Your task to perform on an android device: turn on translation in the chrome app Image 0: 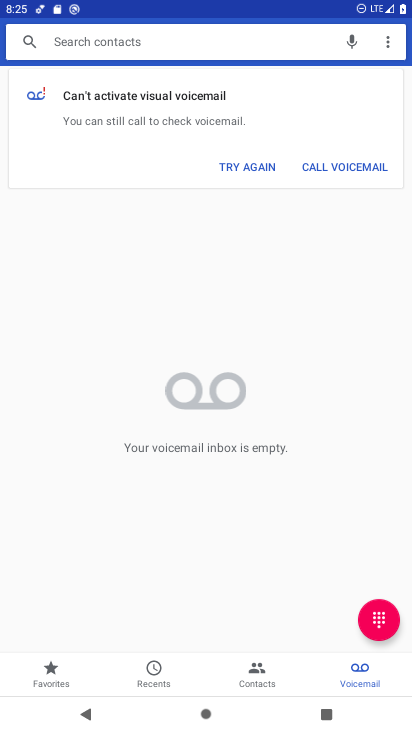
Step 0: press home button
Your task to perform on an android device: turn on translation in the chrome app Image 1: 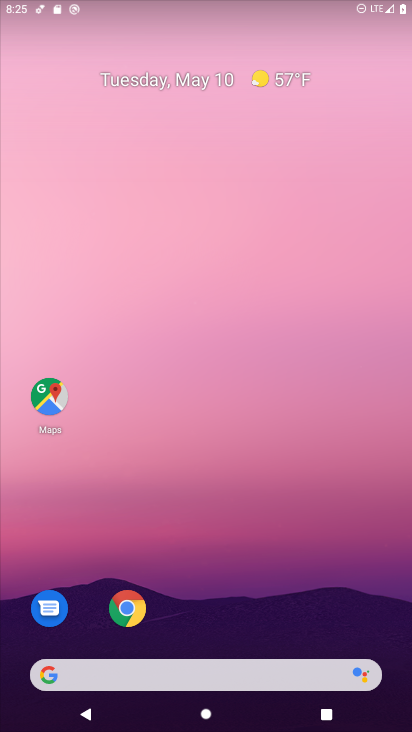
Step 1: drag from (327, 599) to (288, 54)
Your task to perform on an android device: turn on translation in the chrome app Image 2: 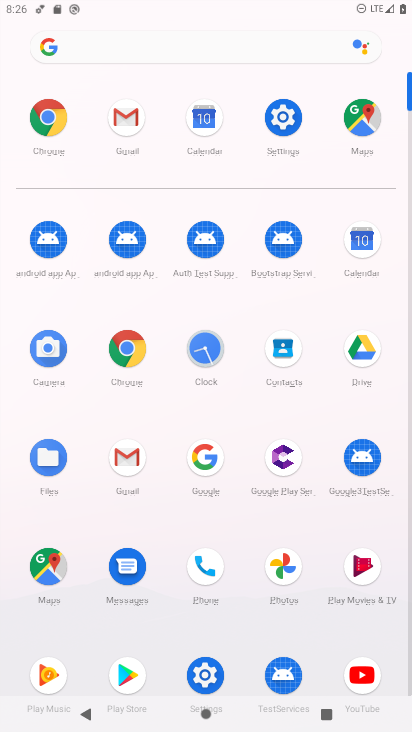
Step 2: click (119, 348)
Your task to perform on an android device: turn on translation in the chrome app Image 3: 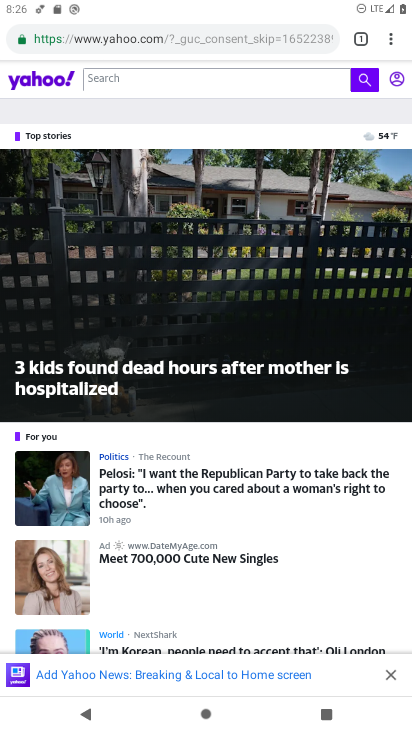
Step 3: press back button
Your task to perform on an android device: turn on translation in the chrome app Image 4: 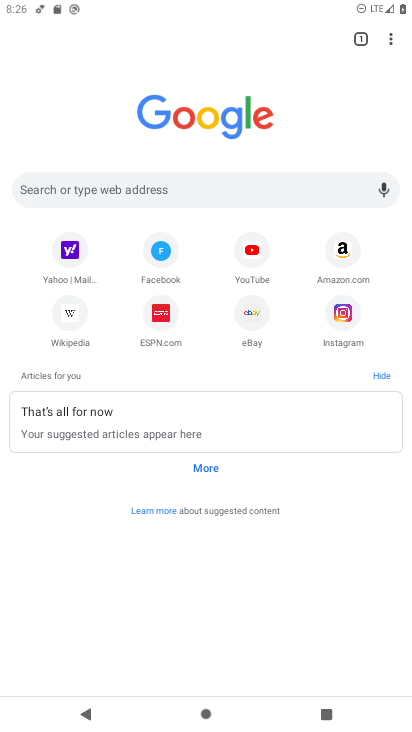
Step 4: click (390, 41)
Your task to perform on an android device: turn on translation in the chrome app Image 5: 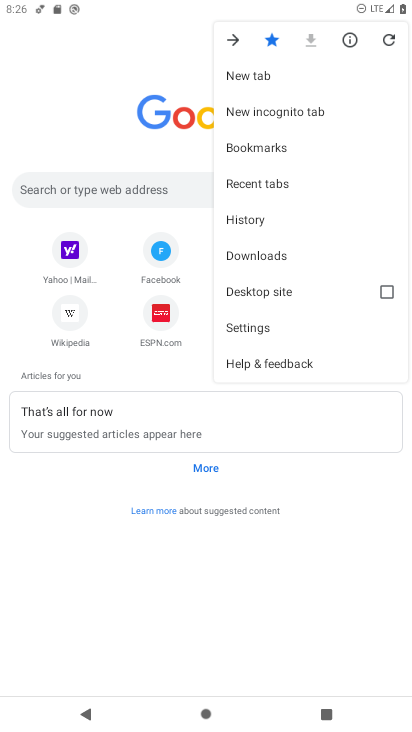
Step 5: click (281, 328)
Your task to perform on an android device: turn on translation in the chrome app Image 6: 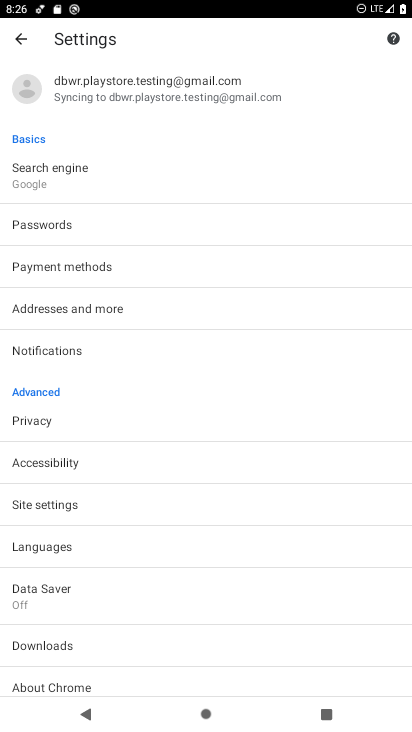
Step 6: click (111, 545)
Your task to perform on an android device: turn on translation in the chrome app Image 7: 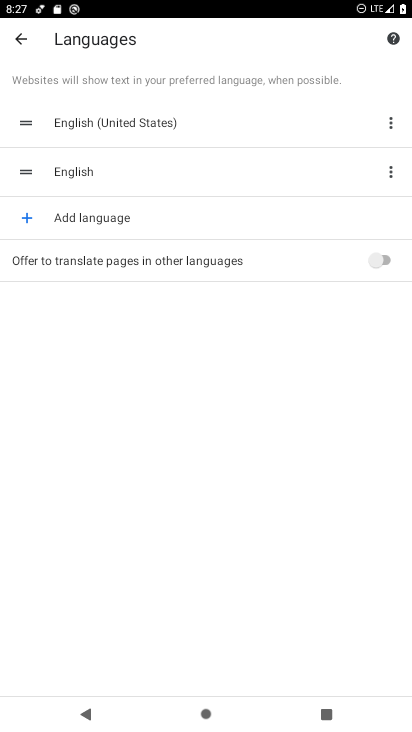
Step 7: click (231, 258)
Your task to perform on an android device: turn on translation in the chrome app Image 8: 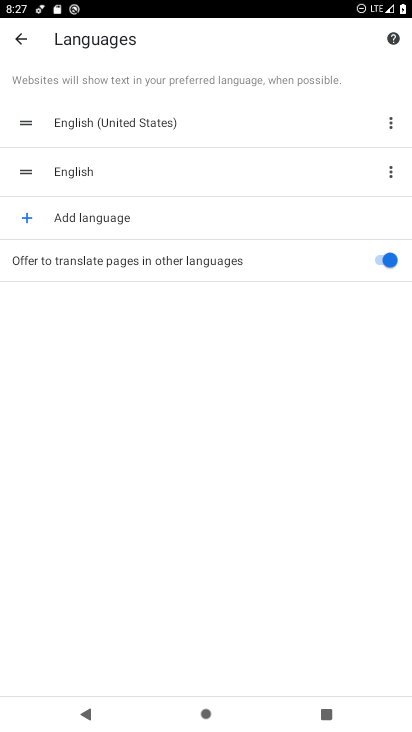
Step 8: task complete